Your task to perform on an android device: Find coffee shops on Maps Image 0: 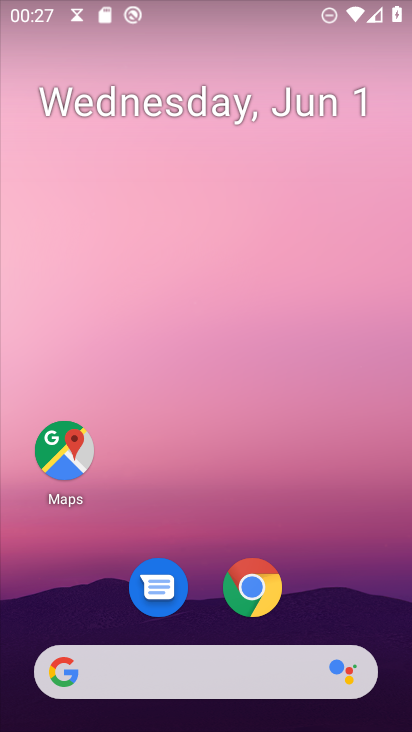
Step 0: click (69, 452)
Your task to perform on an android device: Find coffee shops on Maps Image 1: 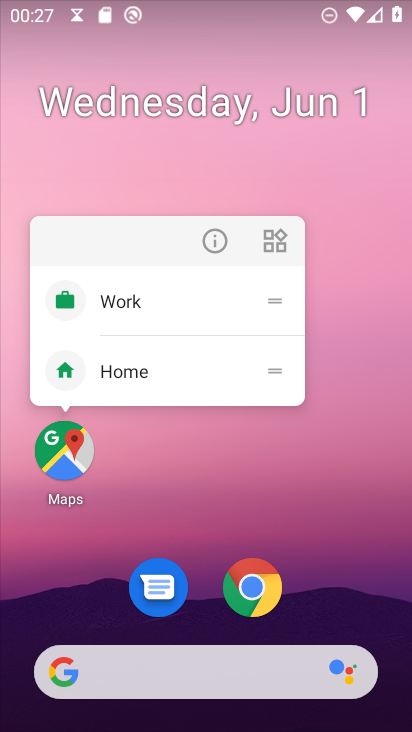
Step 1: click (59, 457)
Your task to perform on an android device: Find coffee shops on Maps Image 2: 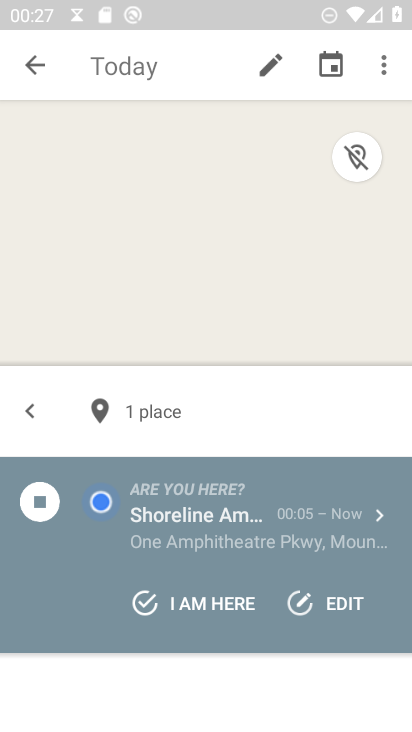
Step 2: click (44, 68)
Your task to perform on an android device: Find coffee shops on Maps Image 3: 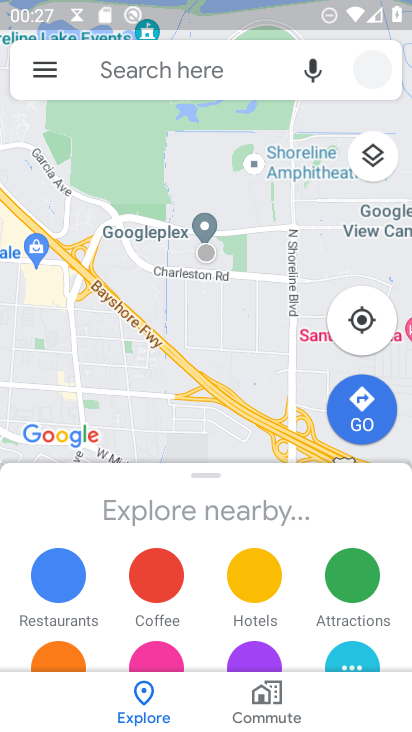
Step 3: click (192, 80)
Your task to perform on an android device: Find coffee shops on Maps Image 4: 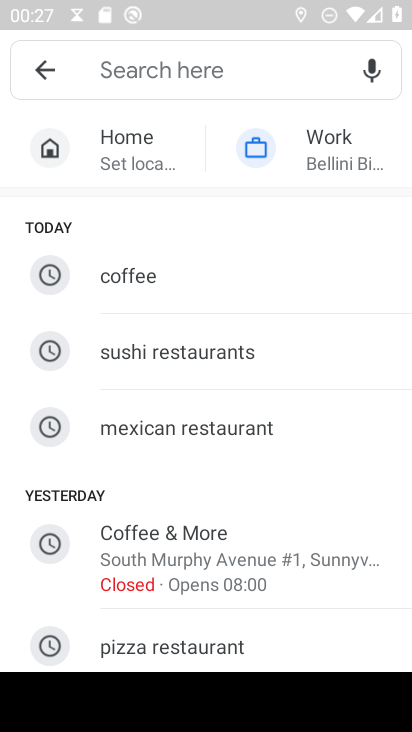
Step 4: type "coffee shops"
Your task to perform on an android device: Find coffee shops on Maps Image 5: 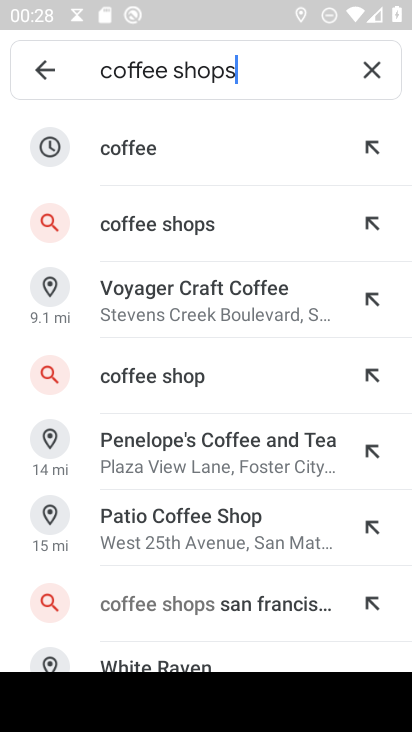
Step 5: click (122, 223)
Your task to perform on an android device: Find coffee shops on Maps Image 6: 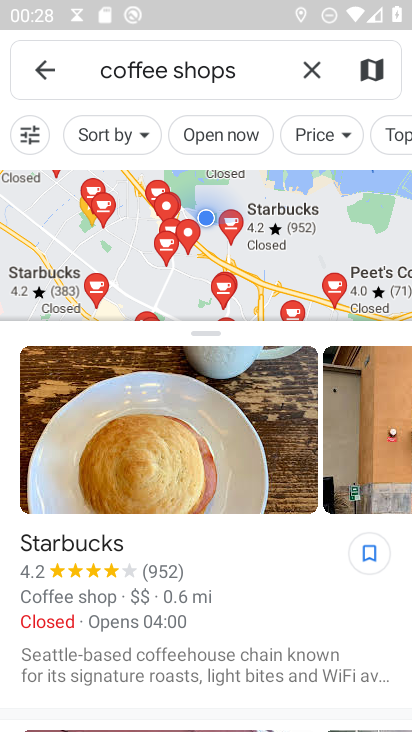
Step 6: task complete